Your task to perform on an android device: set default search engine in the chrome app Image 0: 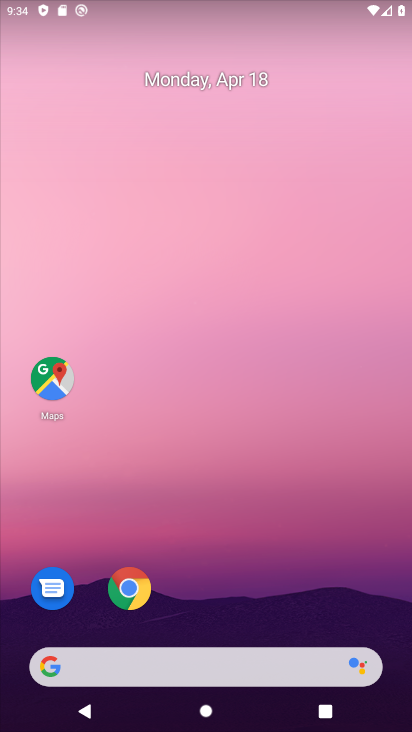
Step 0: drag from (290, 586) to (305, 59)
Your task to perform on an android device: set default search engine in the chrome app Image 1: 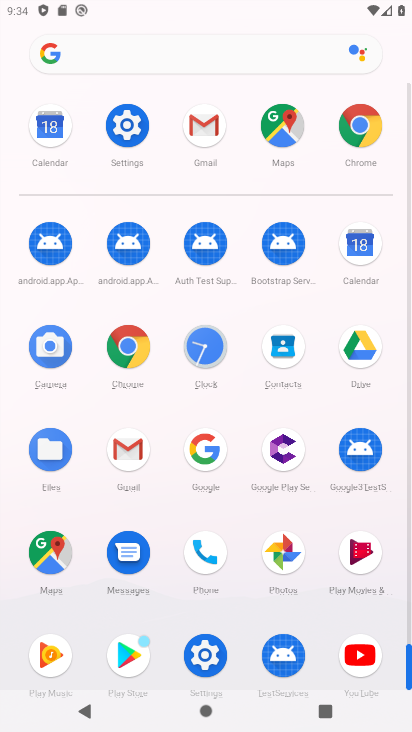
Step 1: click (135, 342)
Your task to perform on an android device: set default search engine in the chrome app Image 2: 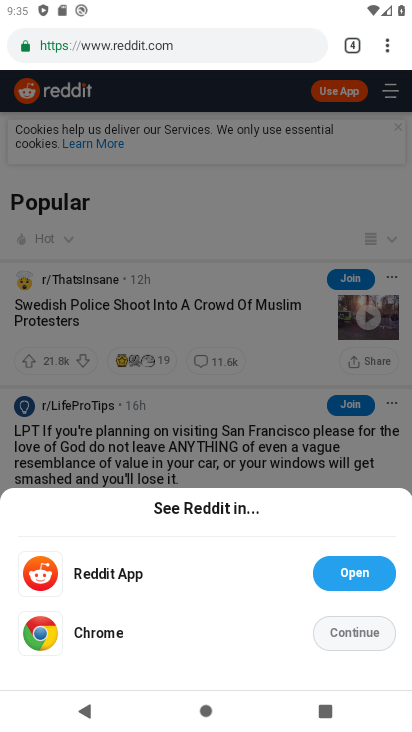
Step 2: drag from (384, 44) to (395, 730)
Your task to perform on an android device: set default search engine in the chrome app Image 3: 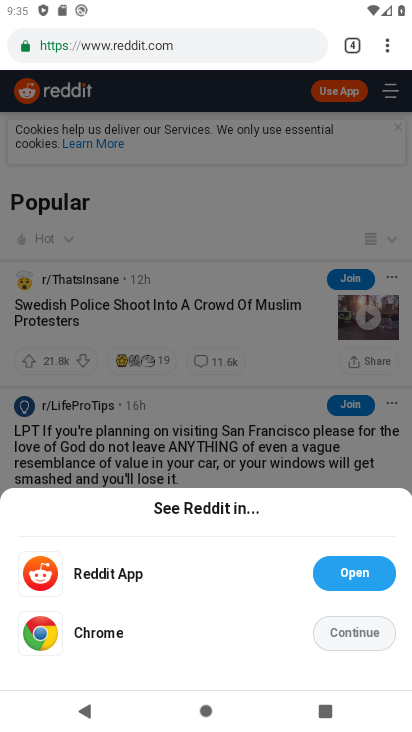
Step 3: drag from (388, 42) to (217, 93)
Your task to perform on an android device: set default search engine in the chrome app Image 4: 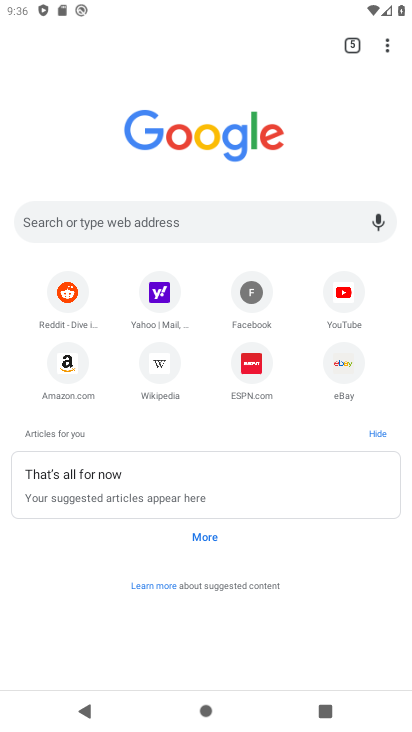
Step 4: drag from (391, 45) to (247, 385)
Your task to perform on an android device: set default search engine in the chrome app Image 5: 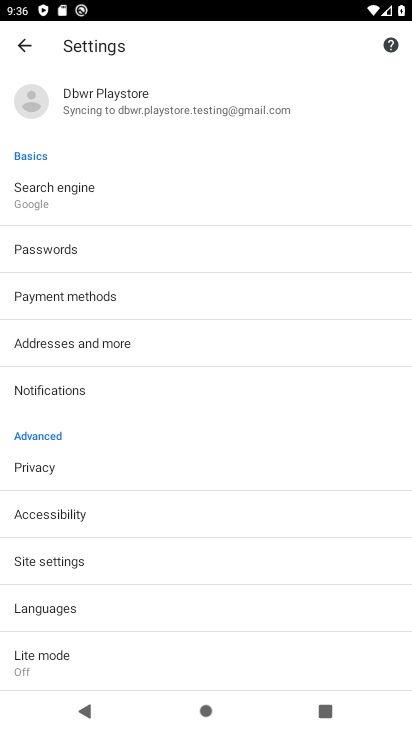
Step 5: drag from (196, 639) to (202, 272)
Your task to perform on an android device: set default search engine in the chrome app Image 6: 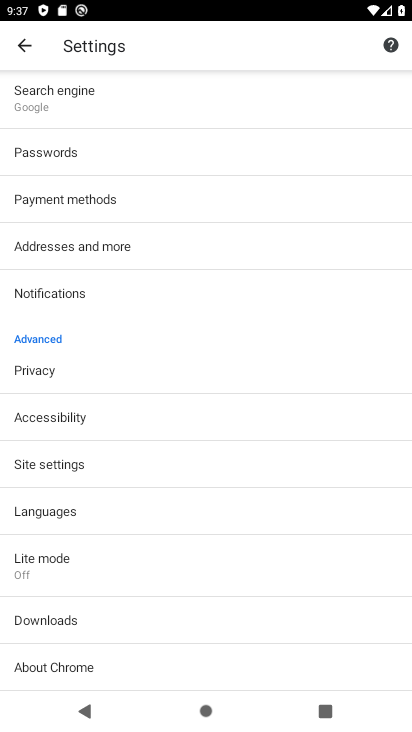
Step 6: drag from (233, 124) to (245, 606)
Your task to perform on an android device: set default search engine in the chrome app Image 7: 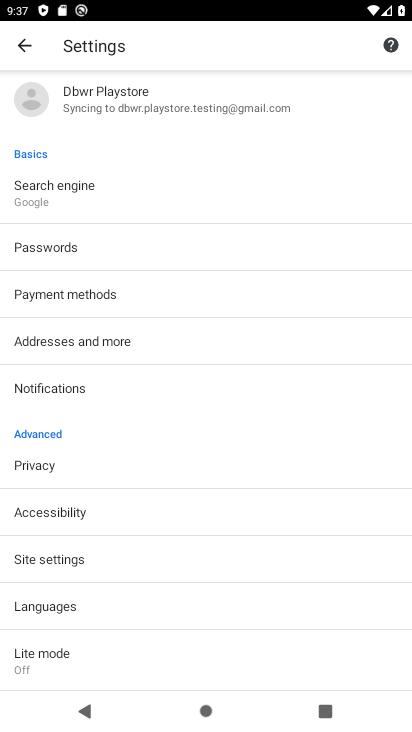
Step 7: click (49, 191)
Your task to perform on an android device: set default search engine in the chrome app Image 8: 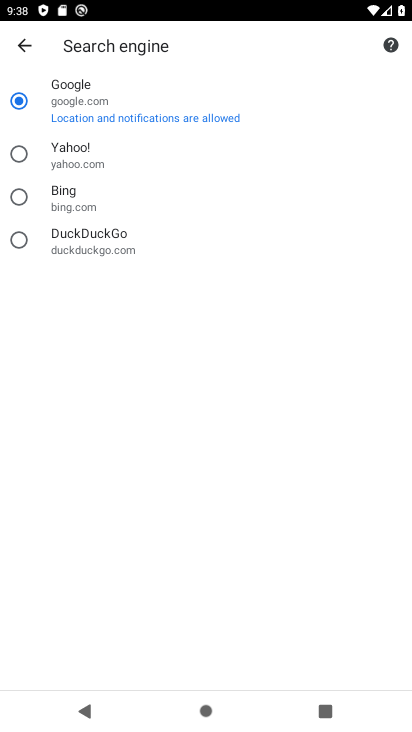
Step 8: task complete